Your task to perform on an android device: Open my contact list Image 0: 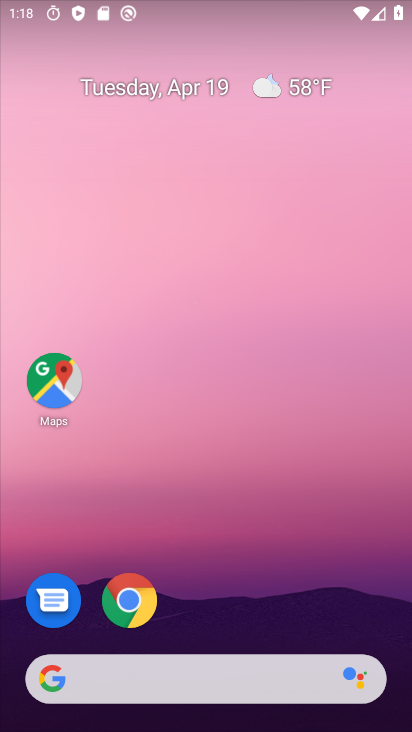
Step 0: drag from (299, 722) to (373, 362)
Your task to perform on an android device: Open my contact list Image 1: 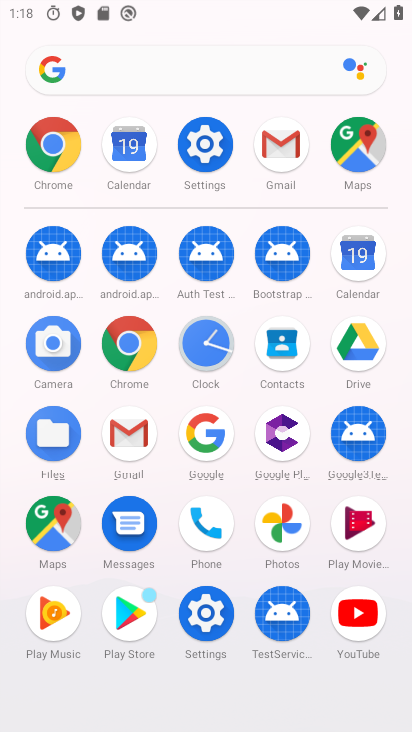
Step 1: click (199, 536)
Your task to perform on an android device: Open my contact list Image 2: 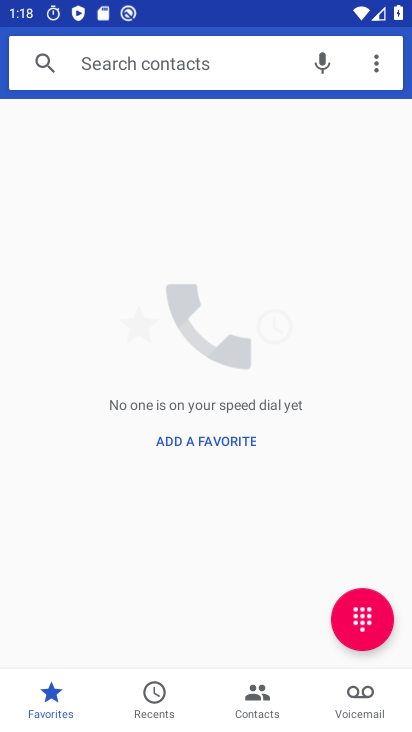
Step 2: click (262, 686)
Your task to perform on an android device: Open my contact list Image 3: 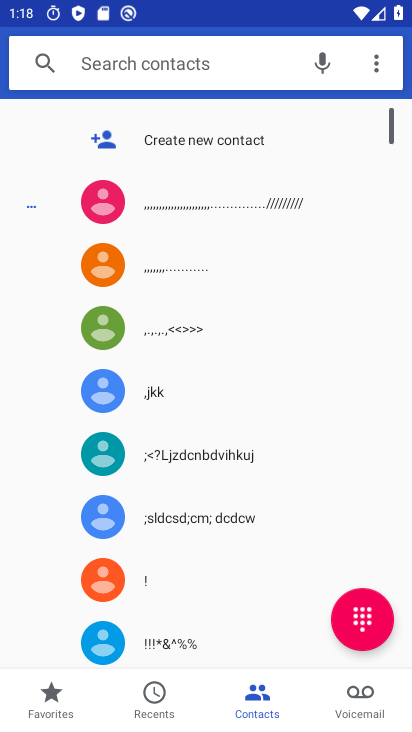
Step 3: task complete